Your task to perform on an android device: turn off location history Image 0: 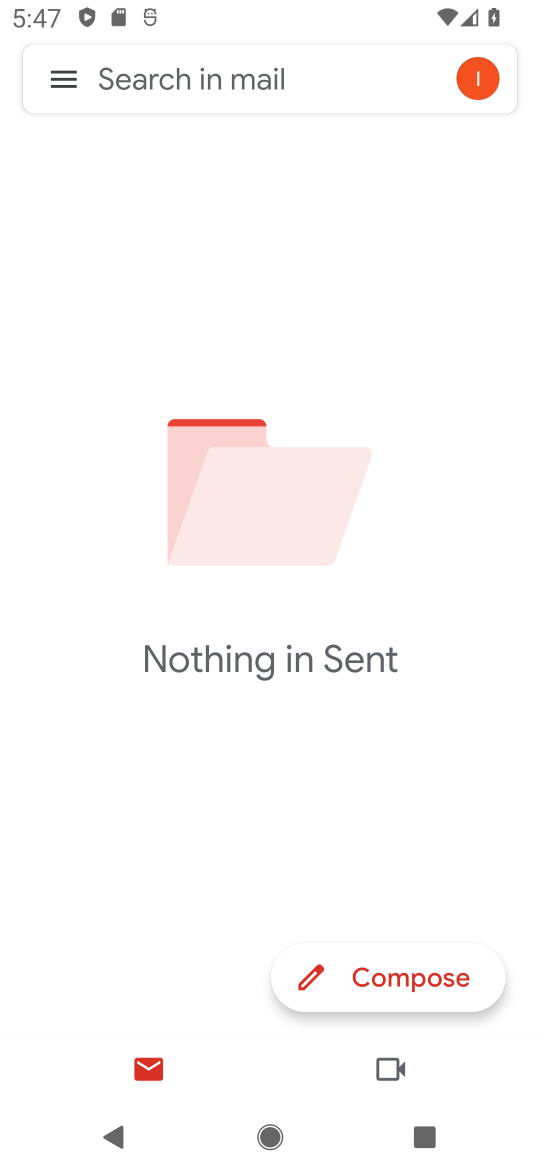
Step 0: press home button
Your task to perform on an android device: turn off location history Image 1: 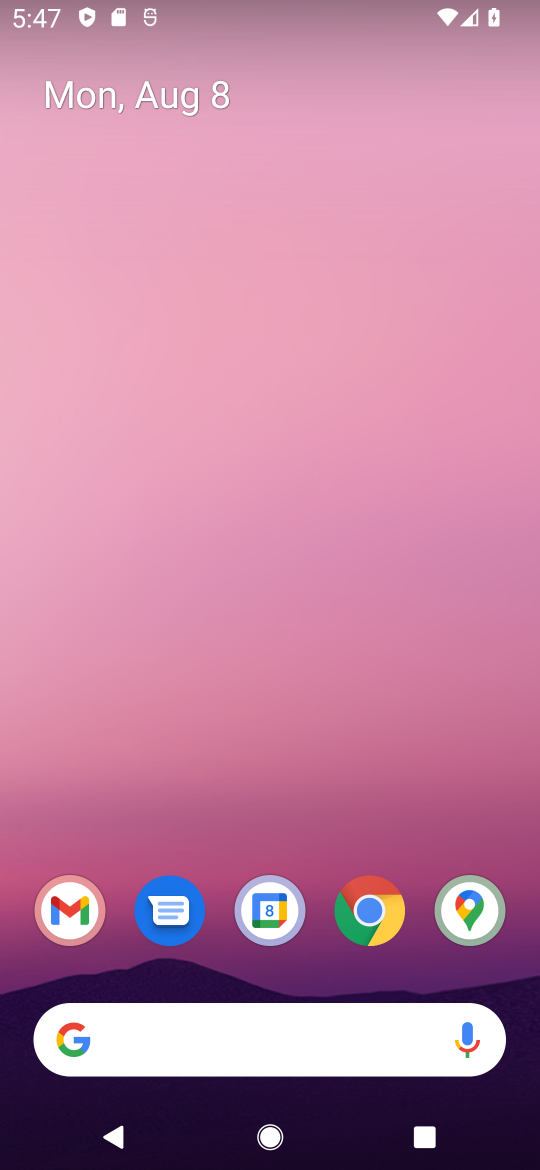
Step 1: drag from (243, 1070) to (352, 528)
Your task to perform on an android device: turn off location history Image 2: 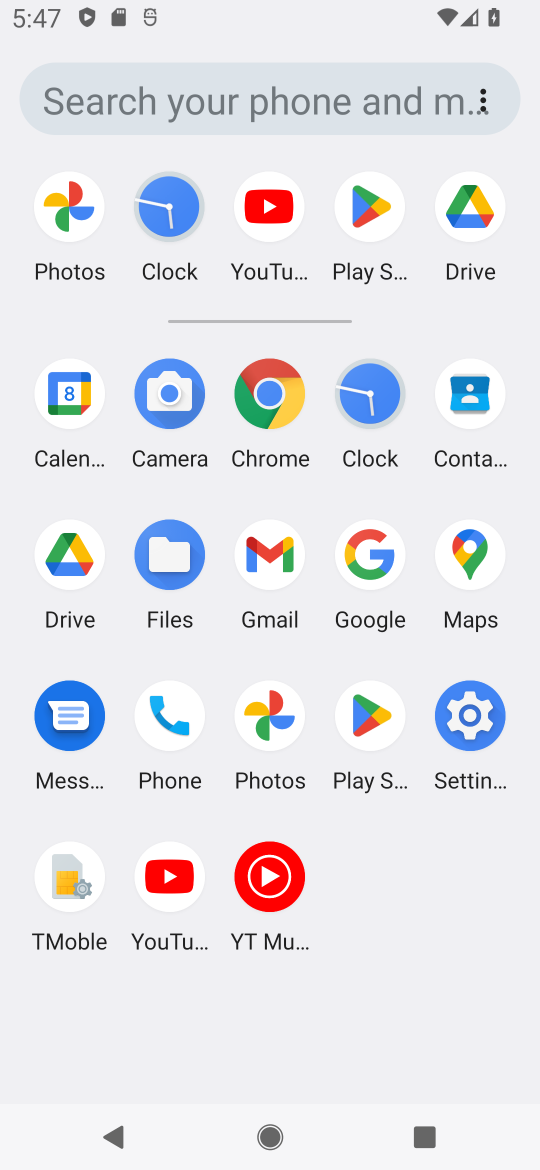
Step 2: click (468, 721)
Your task to perform on an android device: turn off location history Image 3: 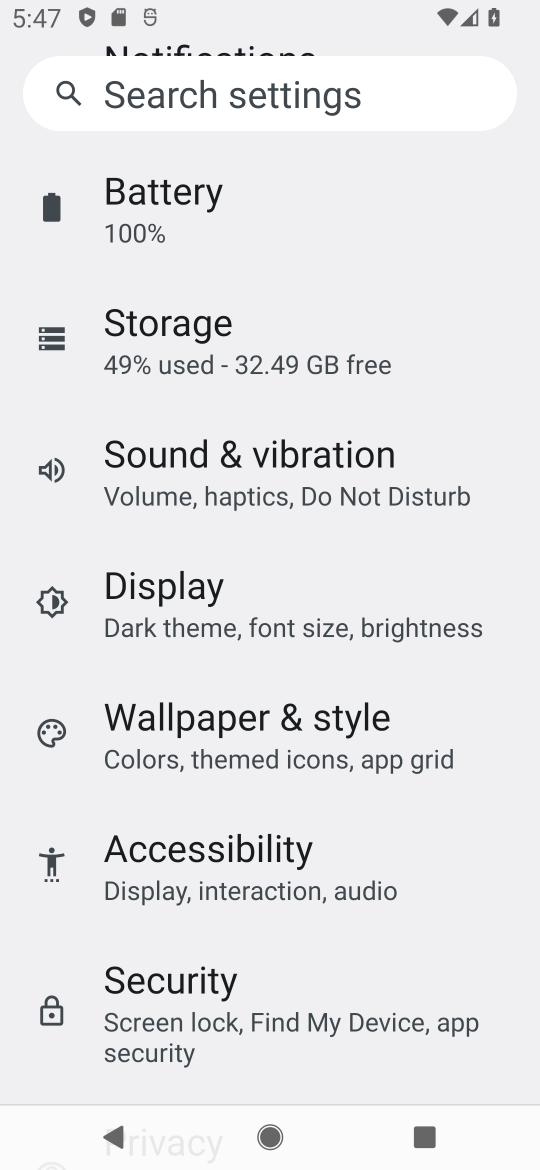
Step 3: drag from (383, 312) to (378, 473)
Your task to perform on an android device: turn off location history Image 4: 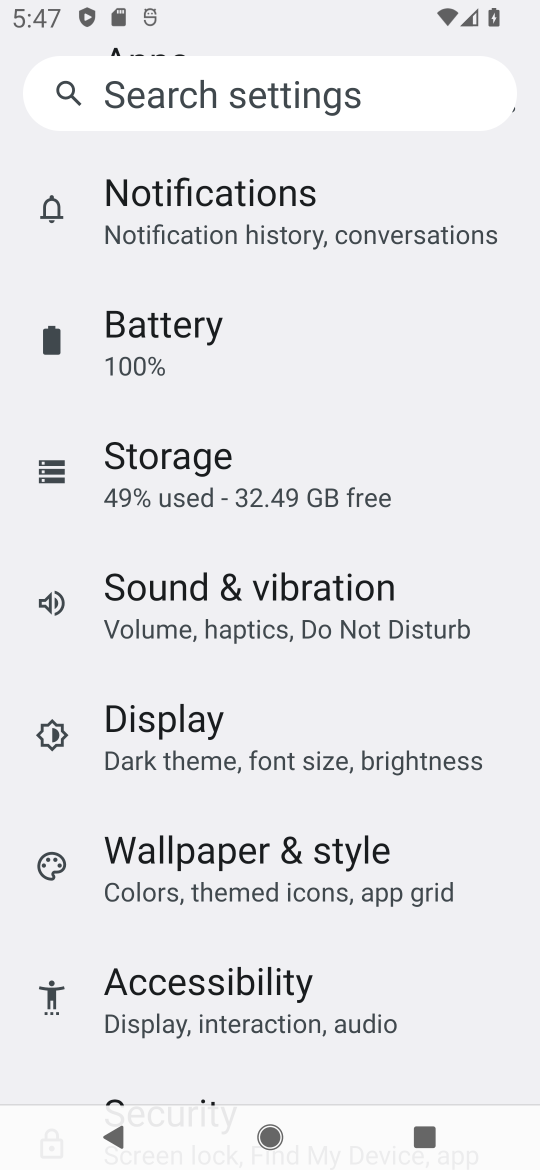
Step 4: drag from (293, 313) to (345, 601)
Your task to perform on an android device: turn off location history Image 5: 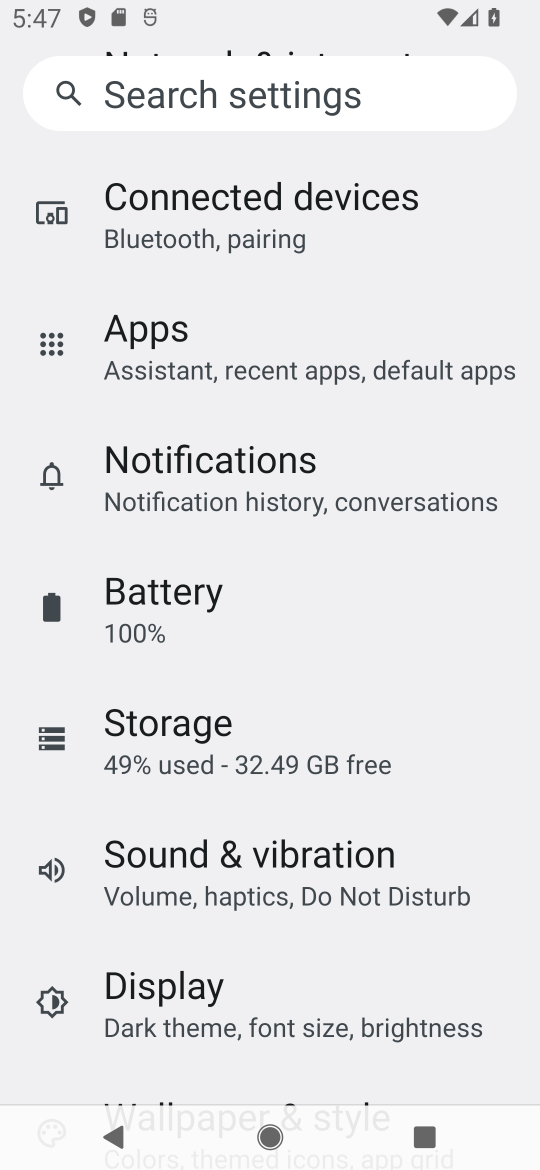
Step 5: drag from (312, 738) to (334, 501)
Your task to perform on an android device: turn off location history Image 6: 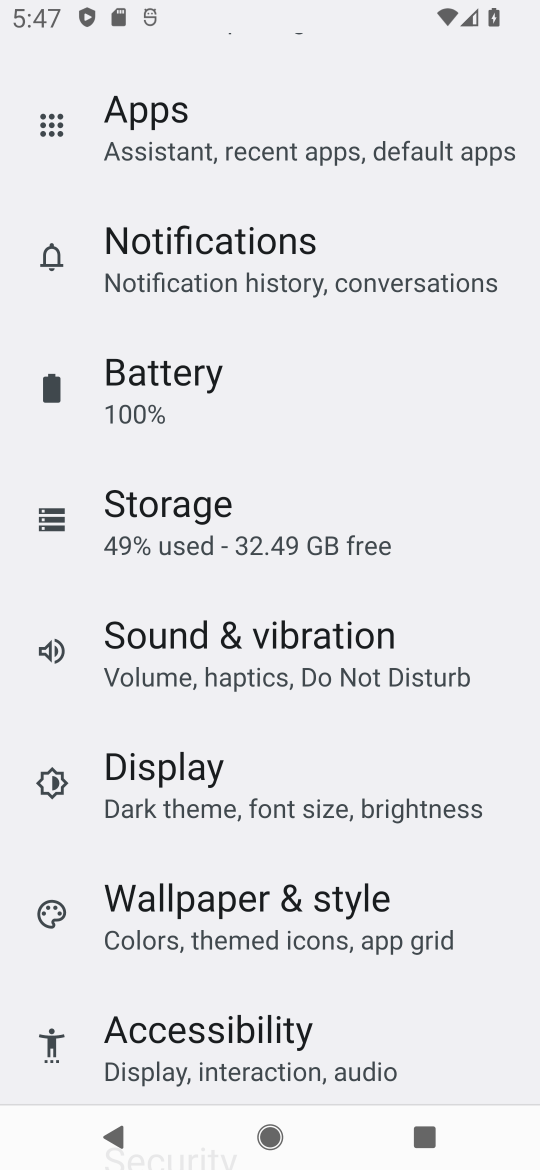
Step 6: drag from (325, 722) to (363, 597)
Your task to perform on an android device: turn off location history Image 7: 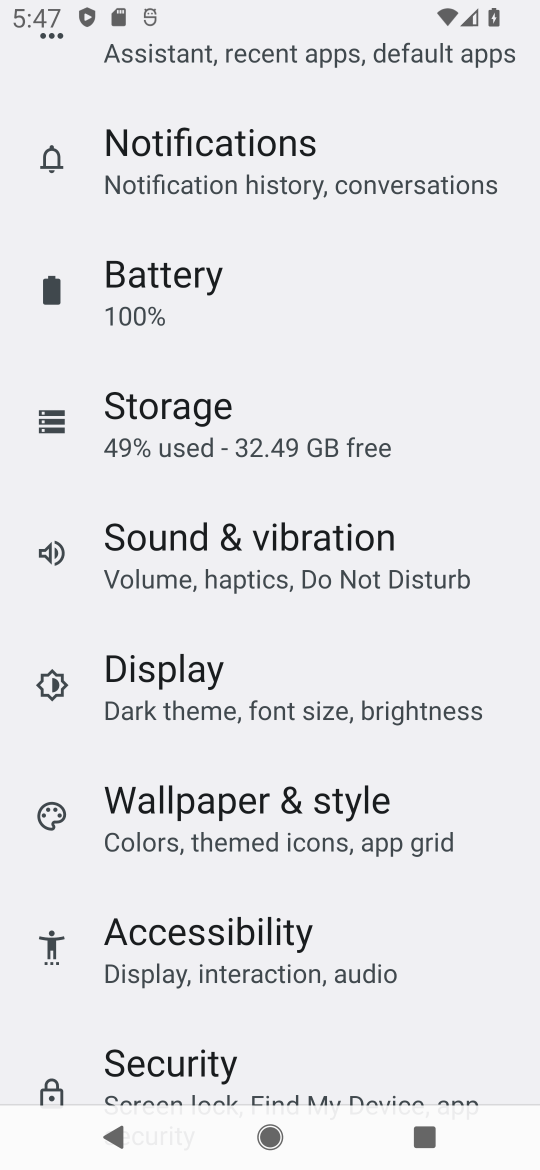
Step 7: drag from (331, 746) to (368, 629)
Your task to perform on an android device: turn off location history Image 8: 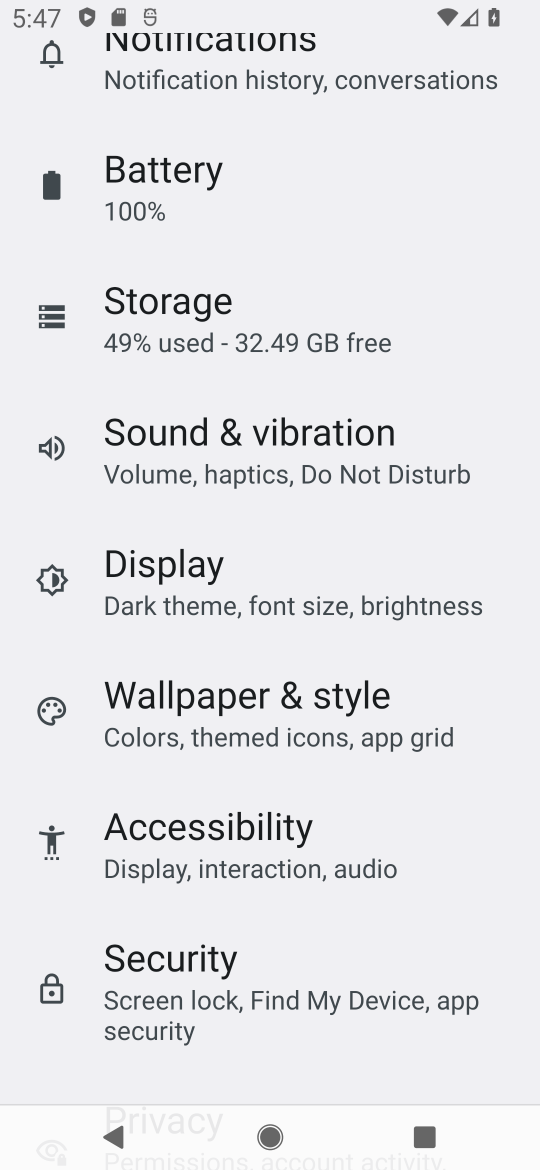
Step 8: drag from (327, 894) to (328, 674)
Your task to perform on an android device: turn off location history Image 9: 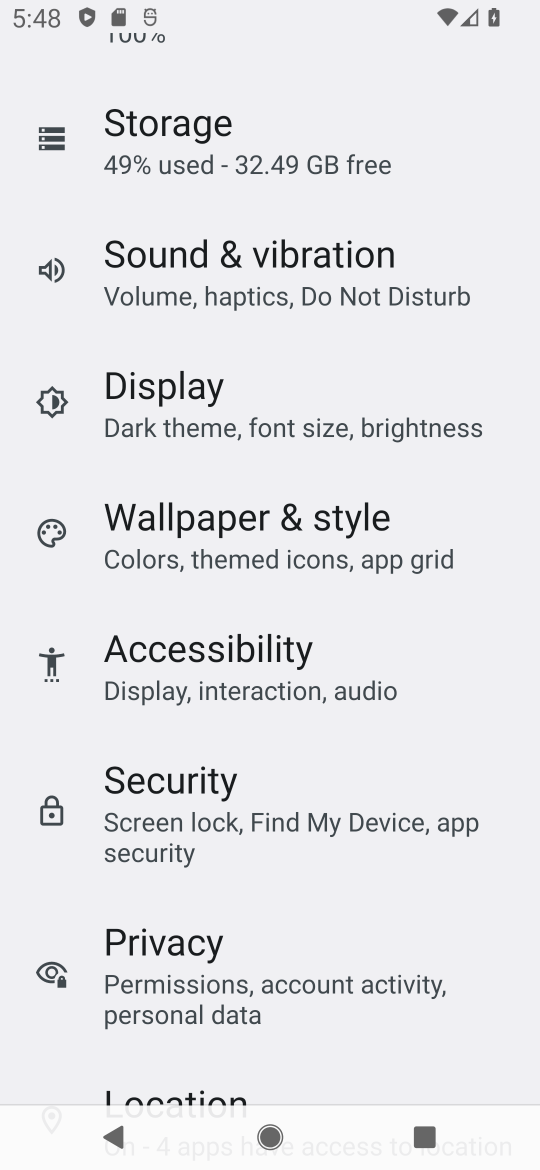
Step 9: drag from (314, 921) to (328, 811)
Your task to perform on an android device: turn off location history Image 10: 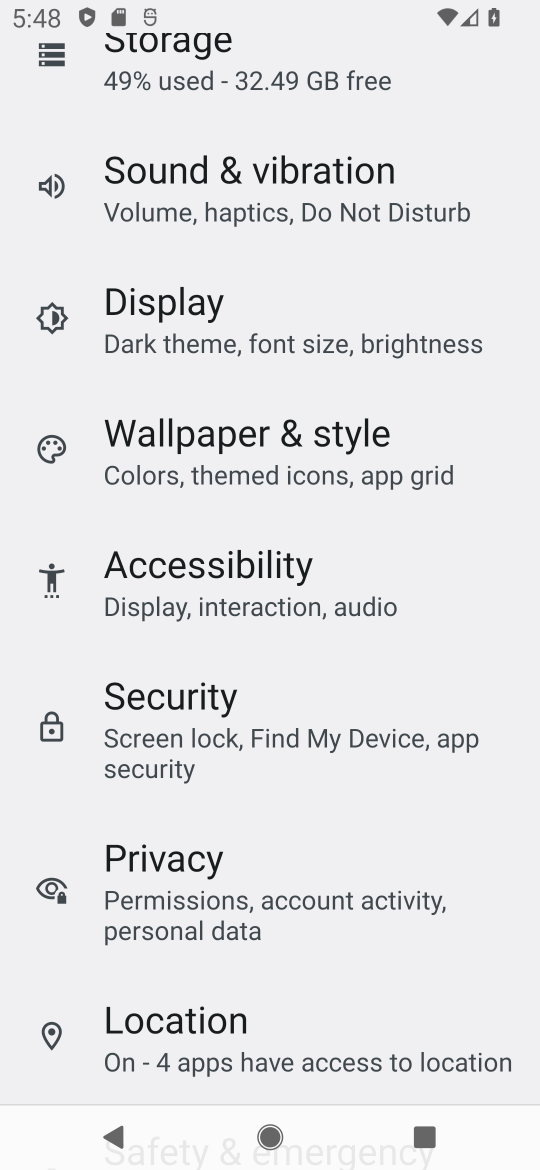
Step 10: click (160, 1032)
Your task to perform on an android device: turn off location history Image 11: 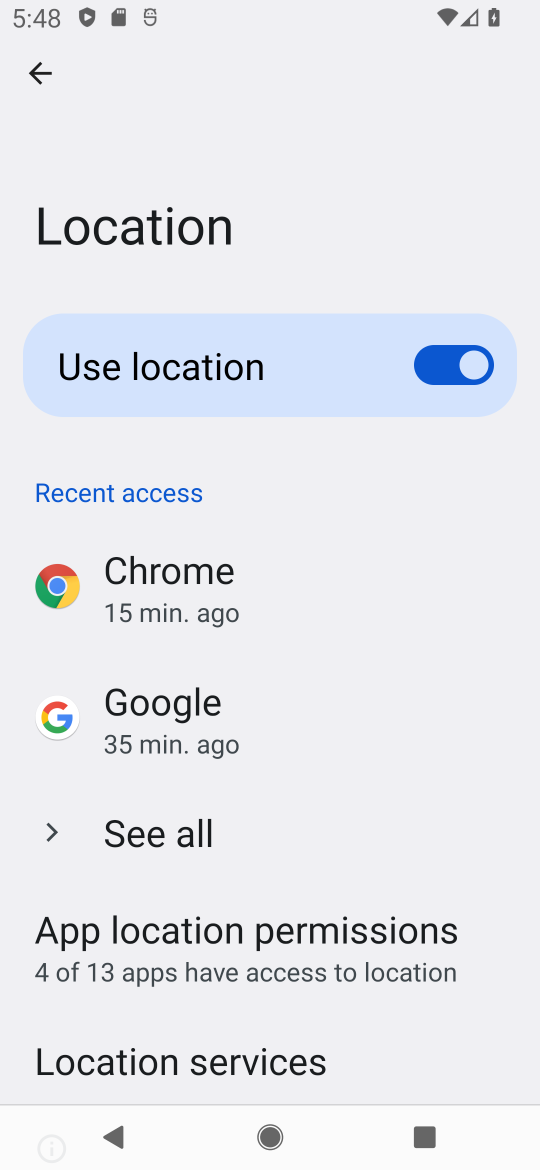
Step 11: drag from (227, 999) to (308, 831)
Your task to perform on an android device: turn off location history Image 12: 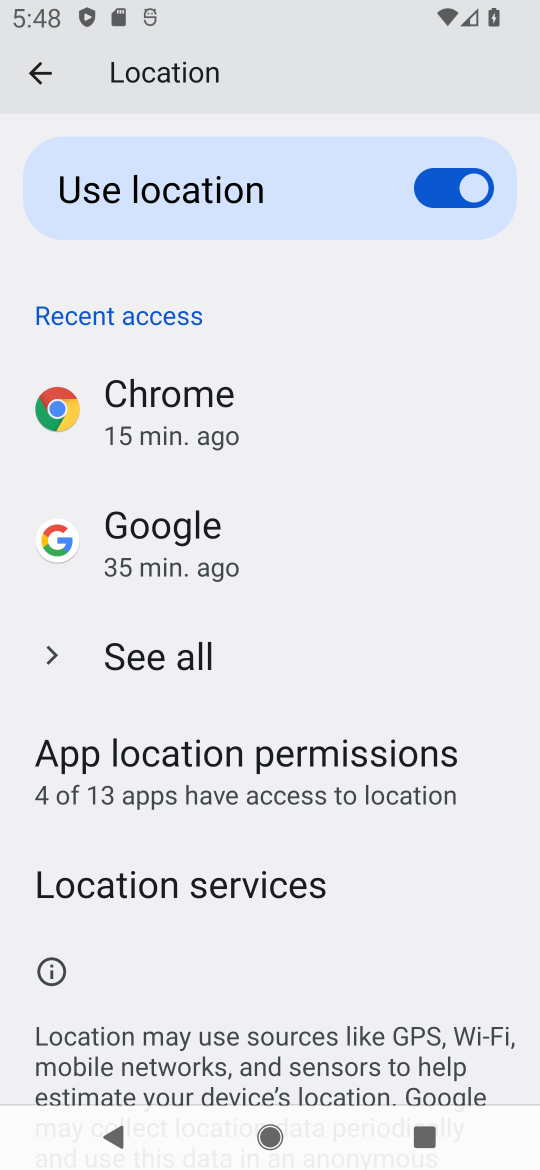
Step 12: click (217, 887)
Your task to perform on an android device: turn off location history Image 13: 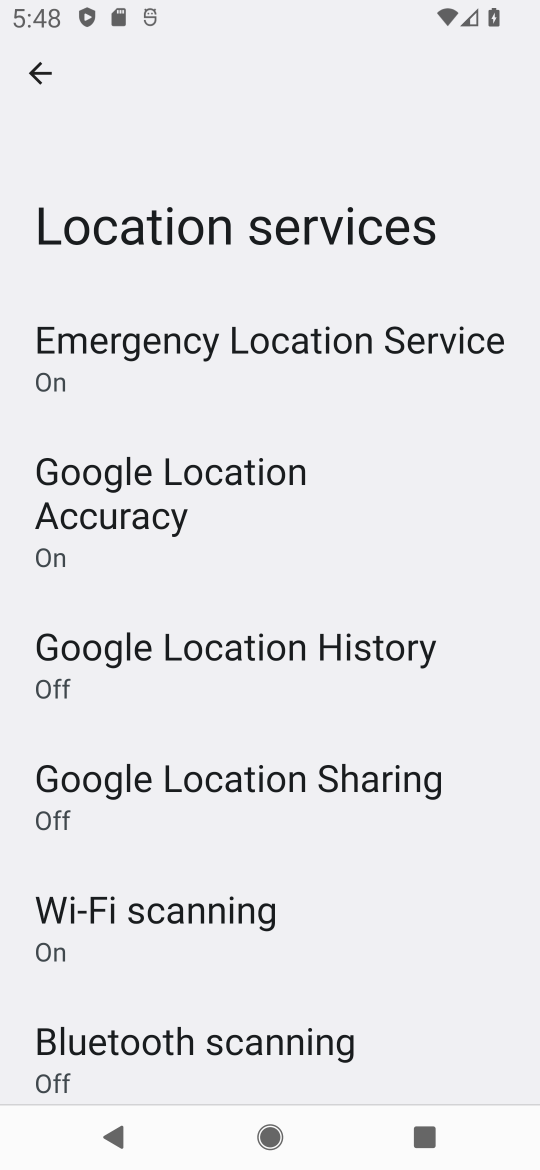
Step 13: task complete